Your task to perform on an android device: turn on improve location accuracy Image 0: 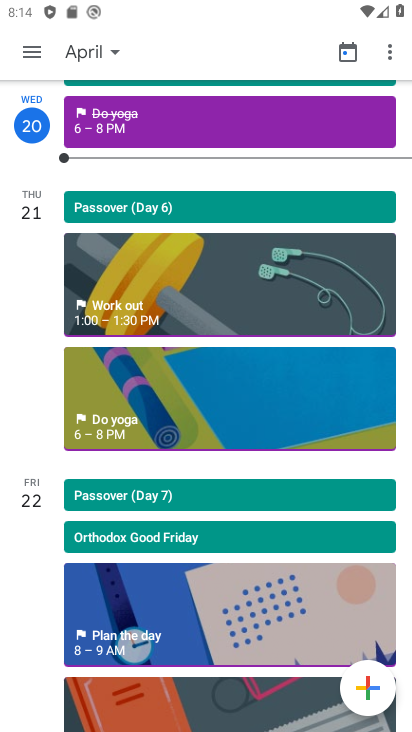
Step 0: press home button
Your task to perform on an android device: turn on improve location accuracy Image 1: 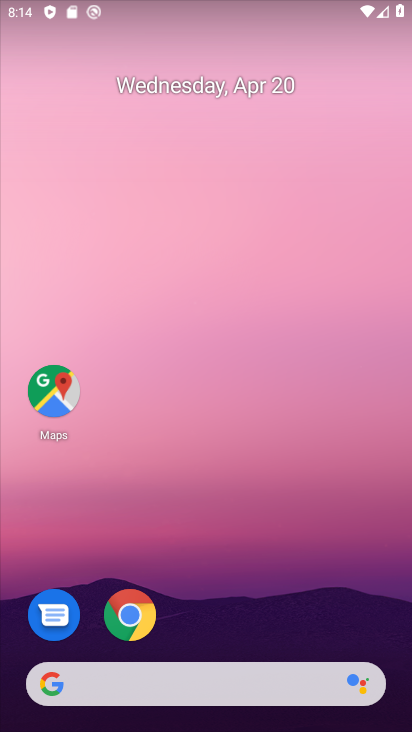
Step 1: drag from (292, 696) to (259, 152)
Your task to perform on an android device: turn on improve location accuracy Image 2: 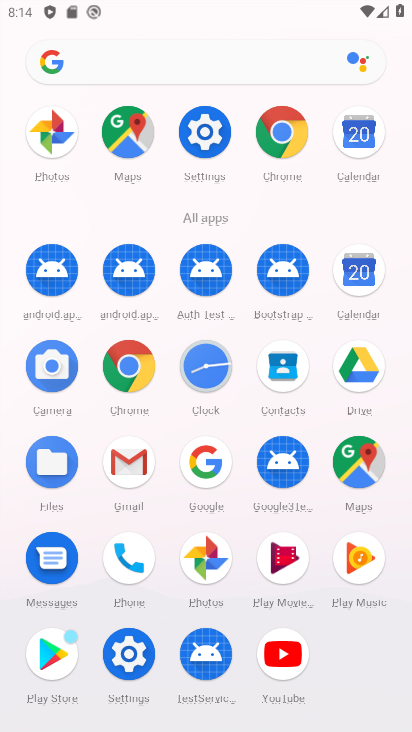
Step 2: click (135, 648)
Your task to perform on an android device: turn on improve location accuracy Image 3: 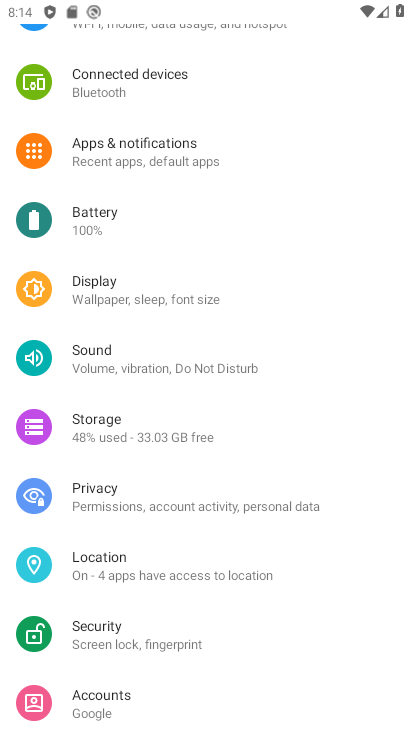
Step 3: click (209, 565)
Your task to perform on an android device: turn on improve location accuracy Image 4: 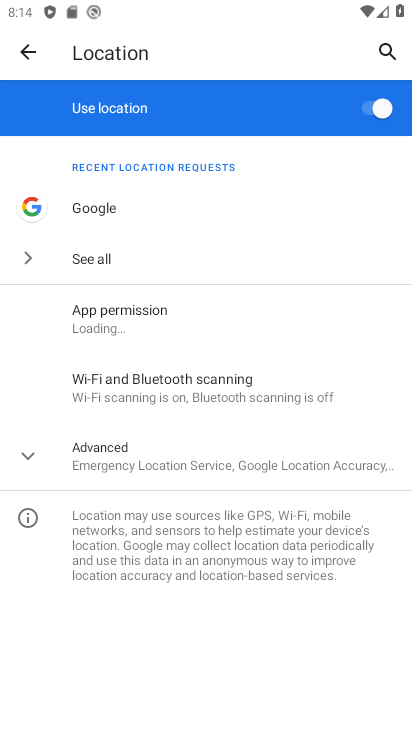
Step 4: click (195, 481)
Your task to perform on an android device: turn on improve location accuracy Image 5: 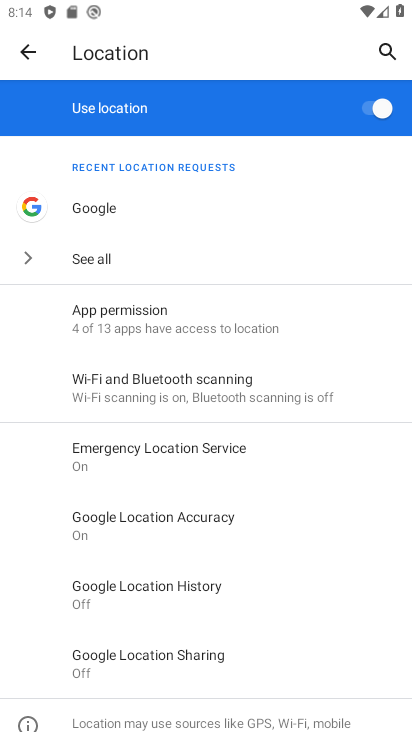
Step 5: click (262, 520)
Your task to perform on an android device: turn on improve location accuracy Image 6: 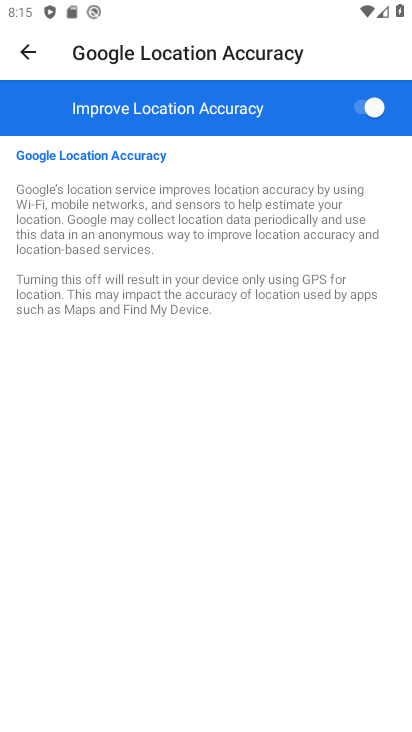
Step 6: task complete